Your task to perform on an android device: Search for sushi restaurants on Maps Image 0: 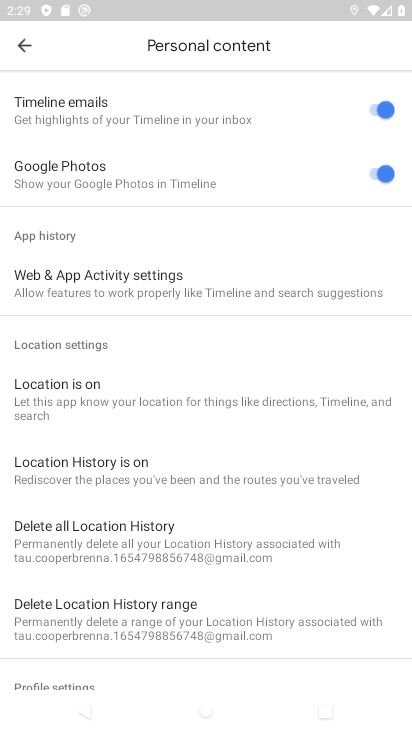
Step 0: press home button
Your task to perform on an android device: Search for sushi restaurants on Maps Image 1: 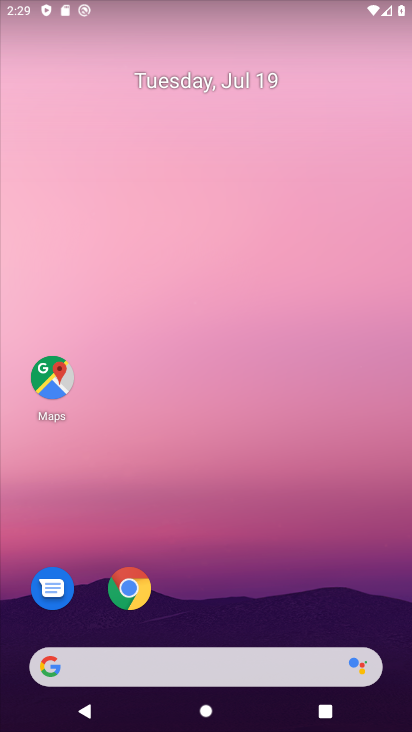
Step 1: click (45, 383)
Your task to perform on an android device: Search for sushi restaurants on Maps Image 2: 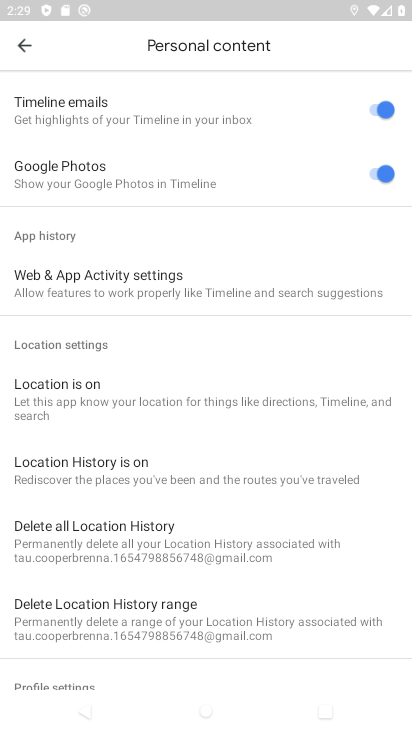
Step 2: click (22, 44)
Your task to perform on an android device: Search for sushi restaurants on Maps Image 3: 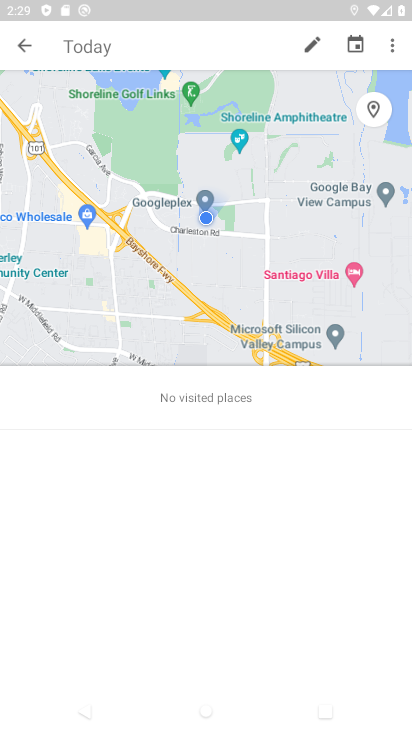
Step 3: click (24, 51)
Your task to perform on an android device: Search for sushi restaurants on Maps Image 4: 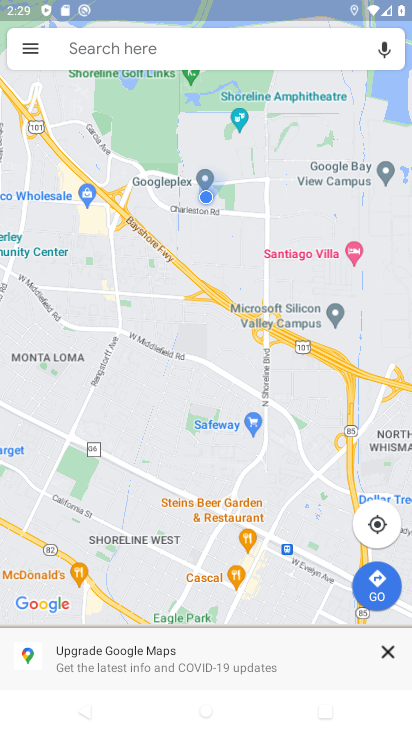
Step 4: click (111, 53)
Your task to perform on an android device: Search for sushi restaurants on Maps Image 5: 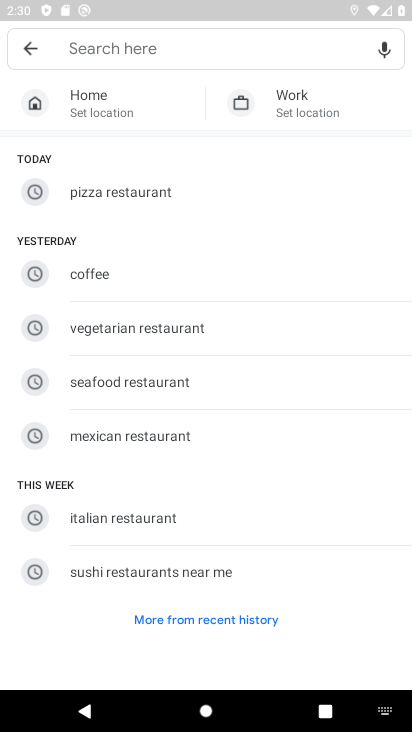
Step 5: type "sushi restaurants"
Your task to perform on an android device: Search for sushi restaurants on Maps Image 6: 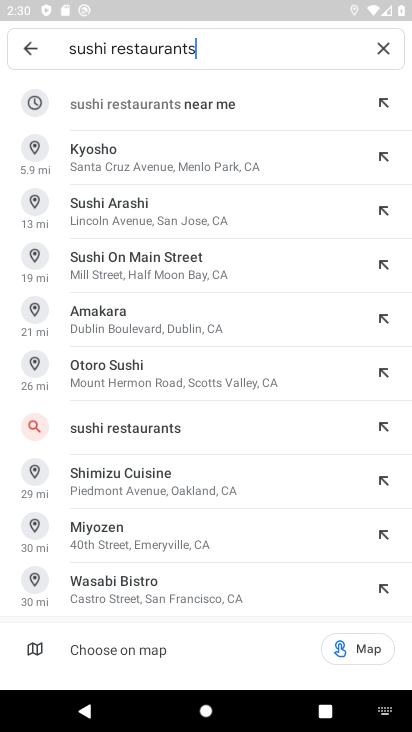
Step 6: click (173, 427)
Your task to perform on an android device: Search for sushi restaurants on Maps Image 7: 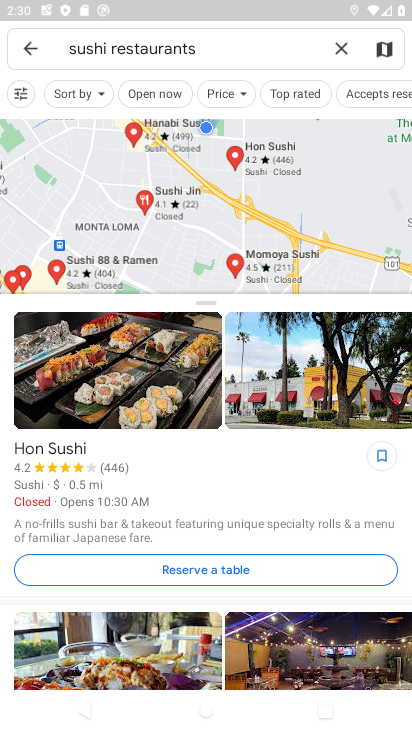
Step 7: task complete